Your task to perform on an android device: Search for sushi restaurants on Maps Image 0: 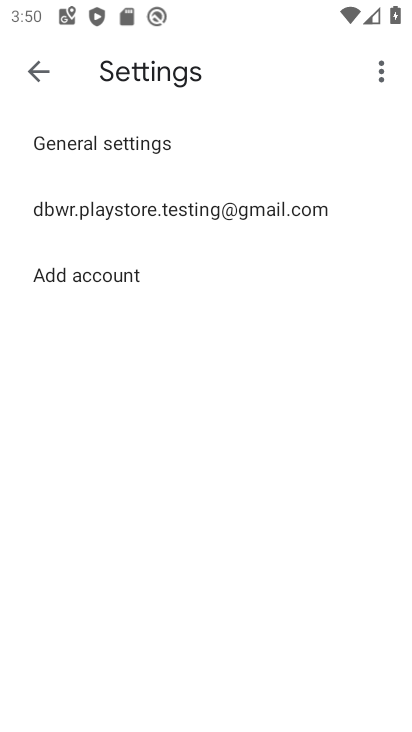
Step 0: press home button
Your task to perform on an android device: Search for sushi restaurants on Maps Image 1: 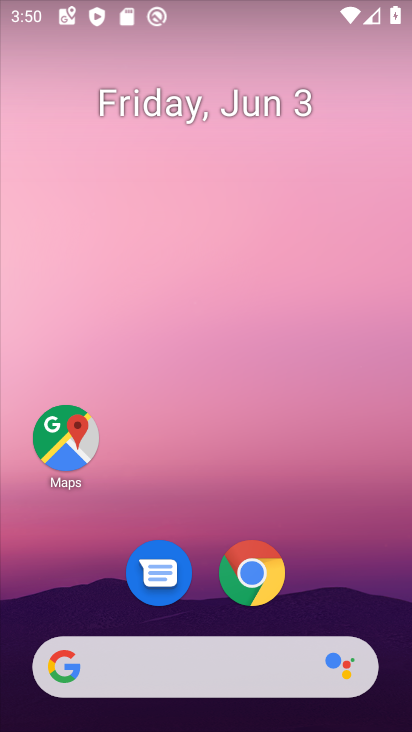
Step 1: click (64, 453)
Your task to perform on an android device: Search for sushi restaurants on Maps Image 2: 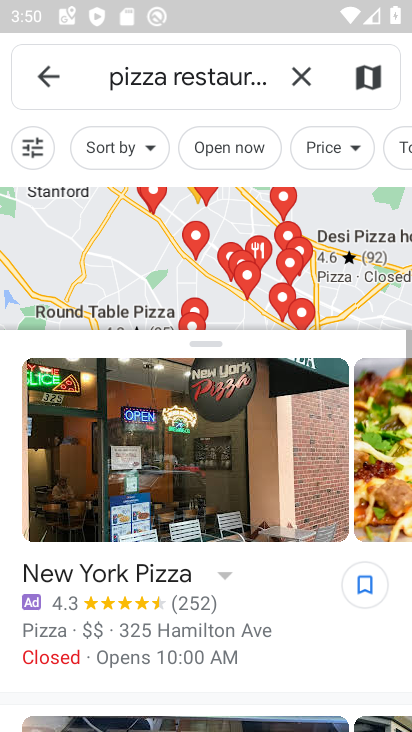
Step 2: click (302, 69)
Your task to perform on an android device: Search for sushi restaurants on Maps Image 3: 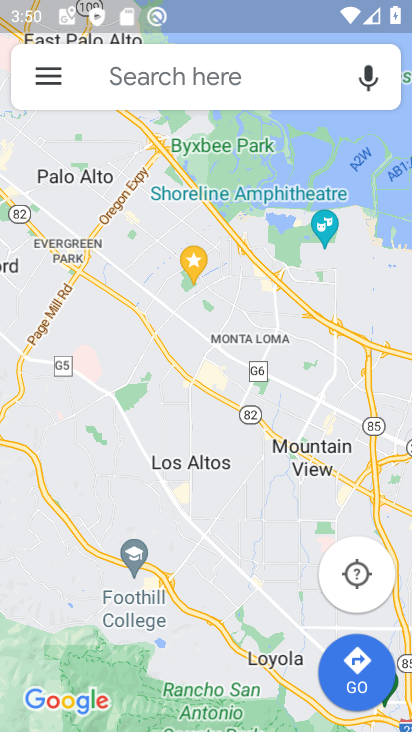
Step 3: click (152, 79)
Your task to perform on an android device: Search for sushi restaurants on Maps Image 4: 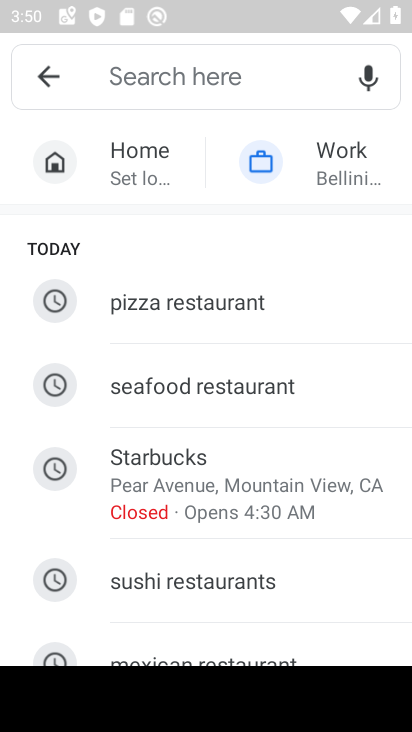
Step 4: type "sushi restaurants"
Your task to perform on an android device: Search for sushi restaurants on Maps Image 5: 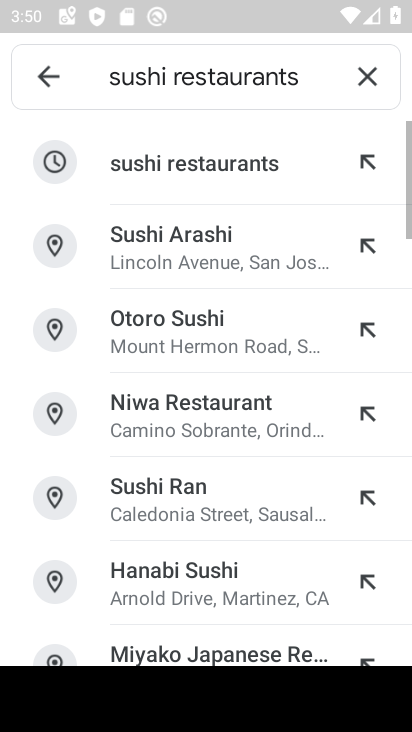
Step 5: click (148, 163)
Your task to perform on an android device: Search for sushi restaurants on Maps Image 6: 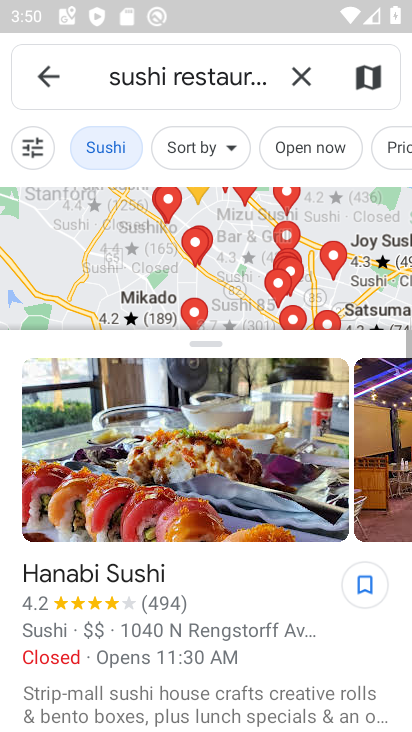
Step 6: task complete